Your task to perform on an android device: Open display settings Image 0: 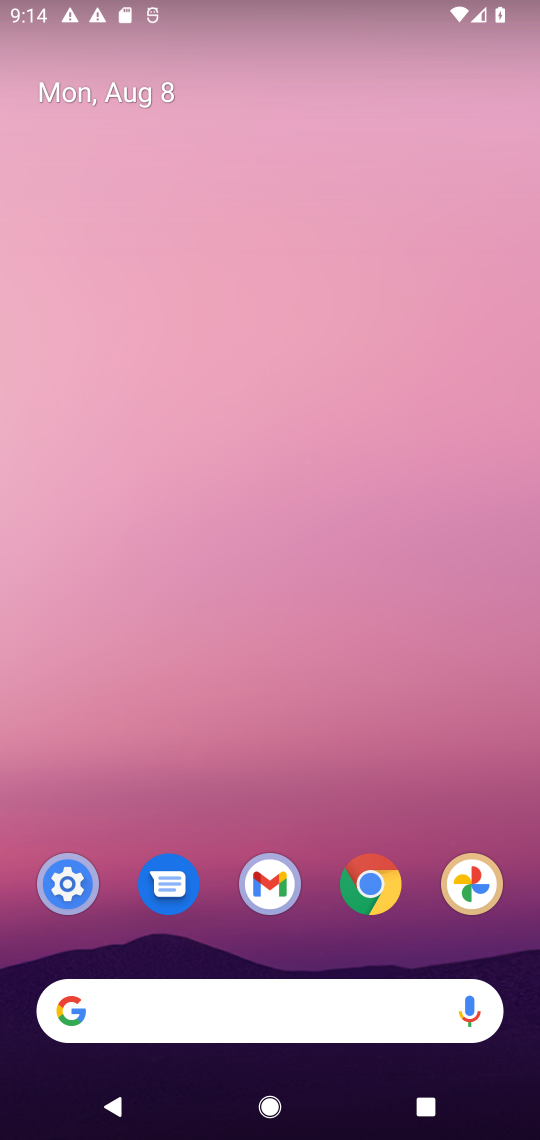
Step 0: click (63, 882)
Your task to perform on an android device: Open display settings Image 1: 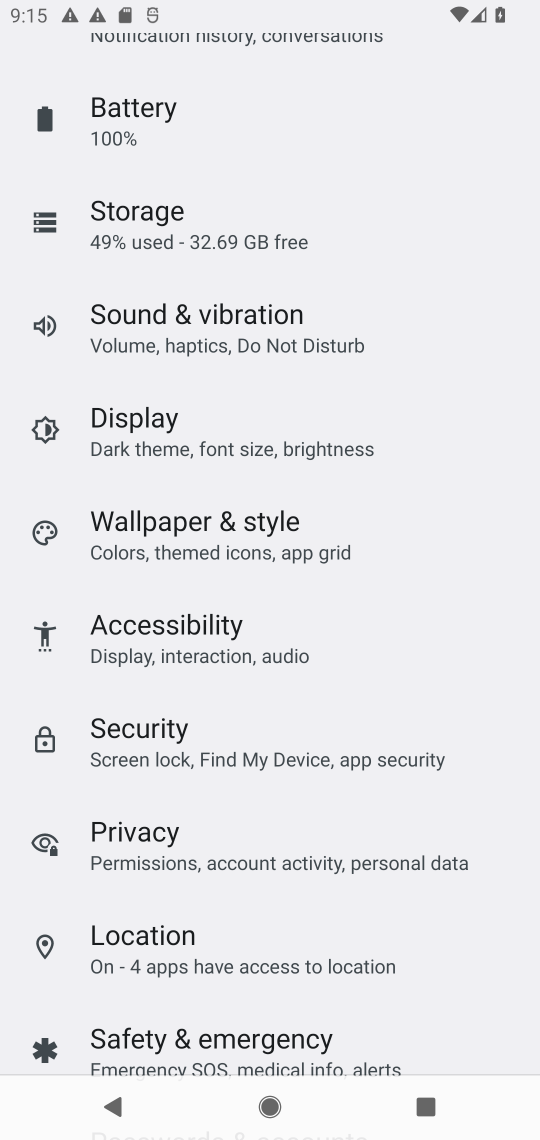
Step 1: click (154, 413)
Your task to perform on an android device: Open display settings Image 2: 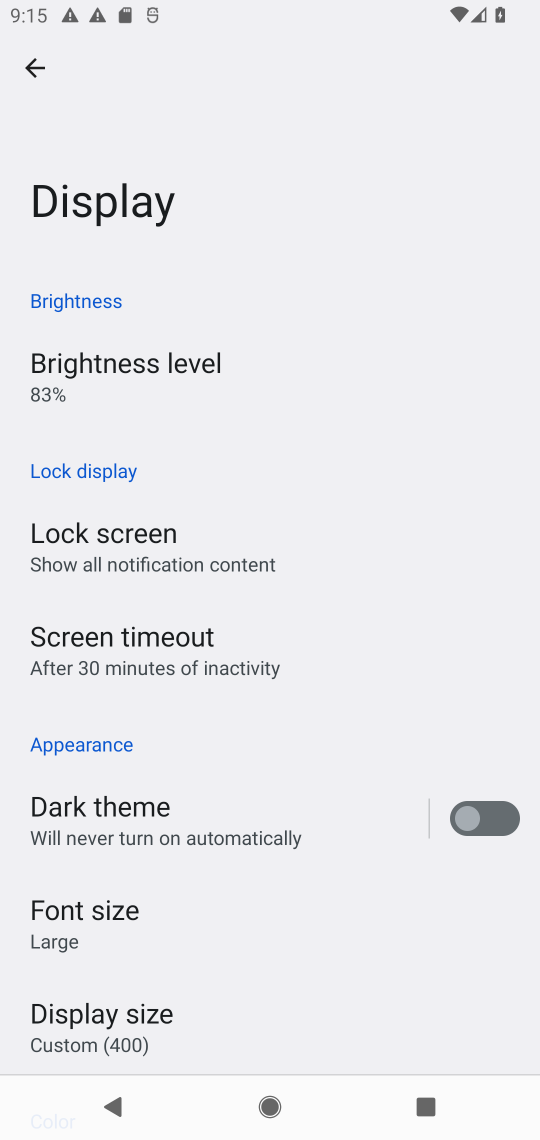
Step 2: task complete